Your task to perform on an android device: make emails show in primary in the gmail app Image 0: 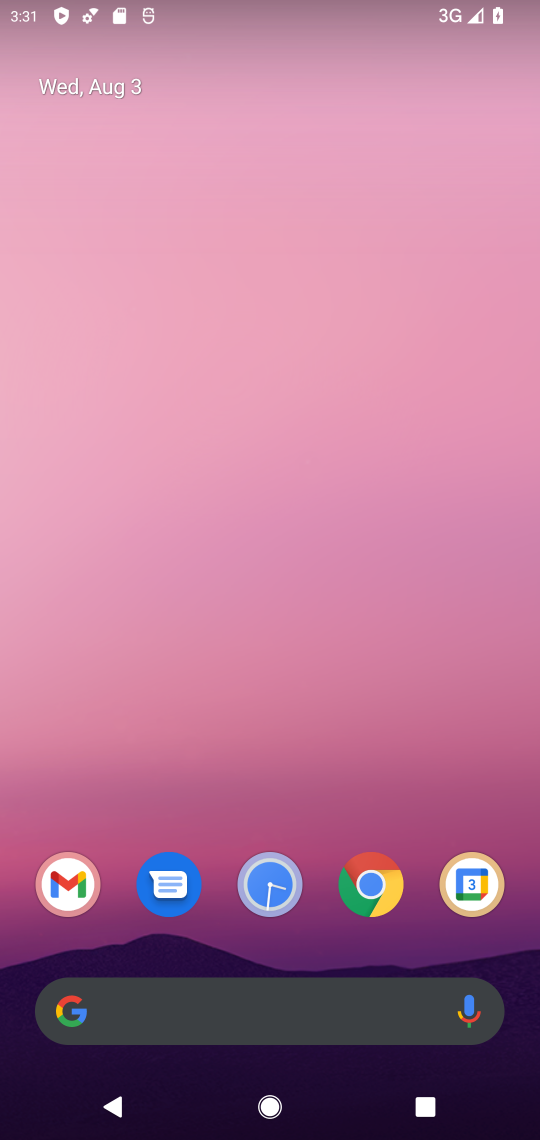
Step 0: click (88, 899)
Your task to perform on an android device: make emails show in primary in the gmail app Image 1: 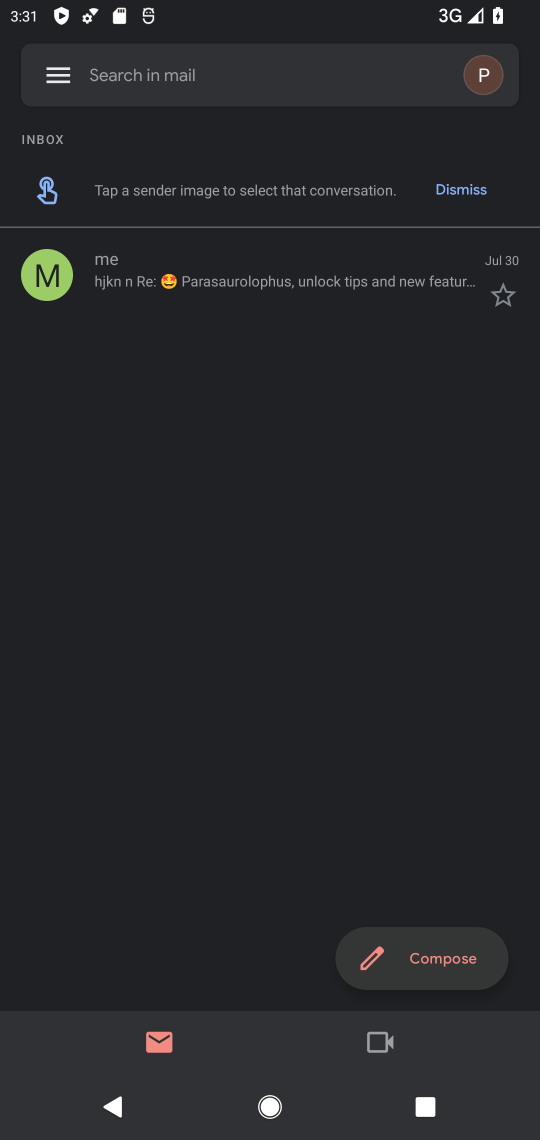
Step 1: click (53, 101)
Your task to perform on an android device: make emails show in primary in the gmail app Image 2: 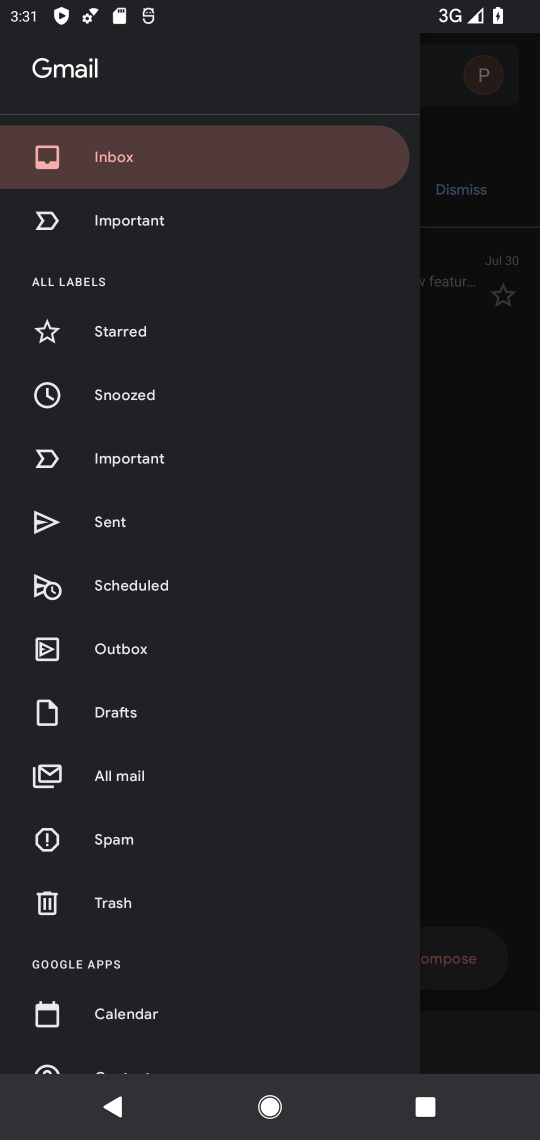
Step 2: click (147, 215)
Your task to perform on an android device: make emails show in primary in the gmail app Image 3: 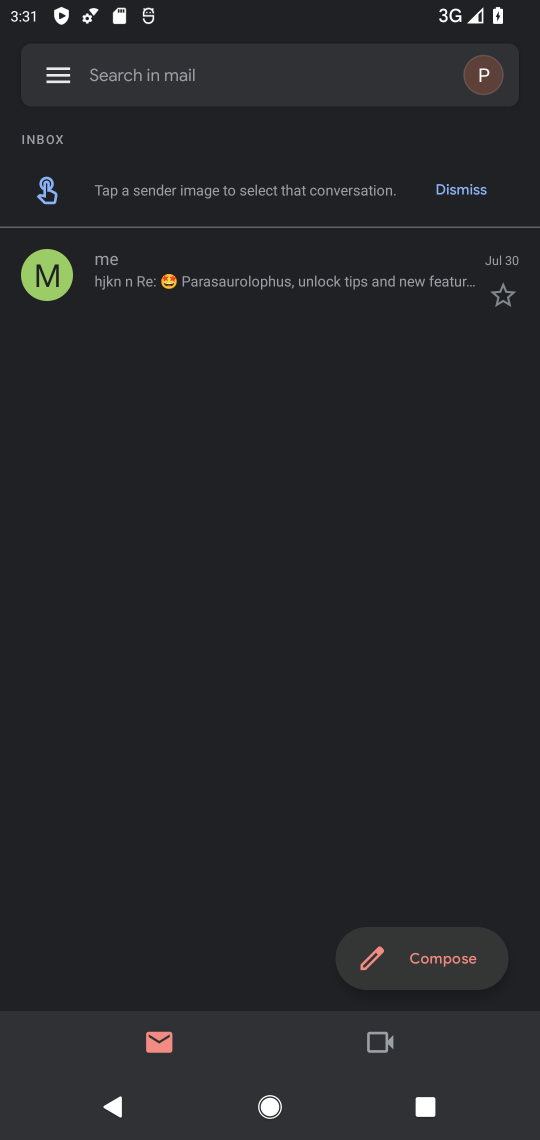
Step 3: task complete